Your task to perform on an android device: Turn off the flashlight Image 0: 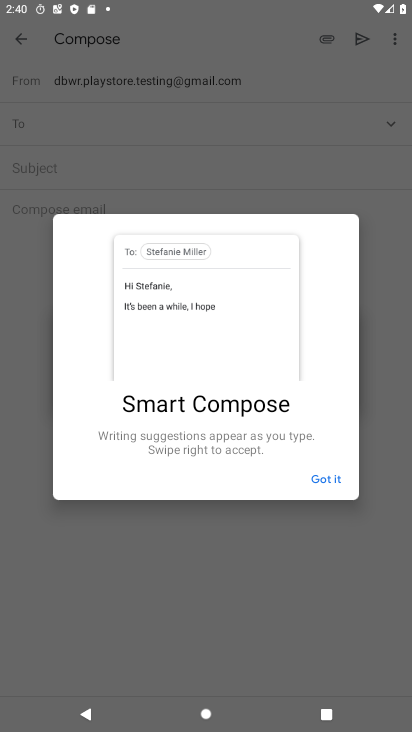
Step 0: press home button
Your task to perform on an android device: Turn off the flashlight Image 1: 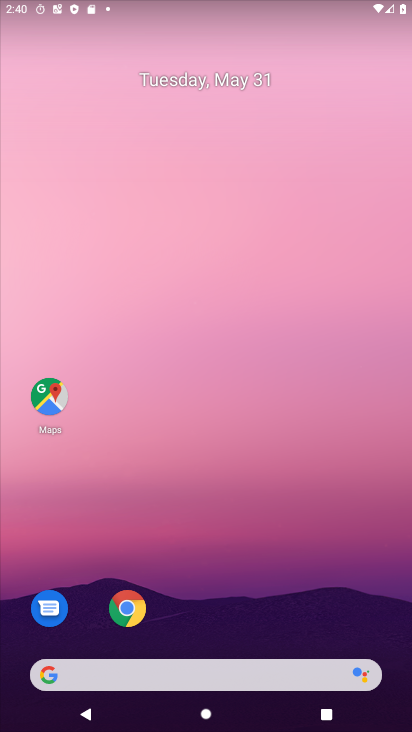
Step 1: drag from (243, 597) to (245, 273)
Your task to perform on an android device: Turn off the flashlight Image 2: 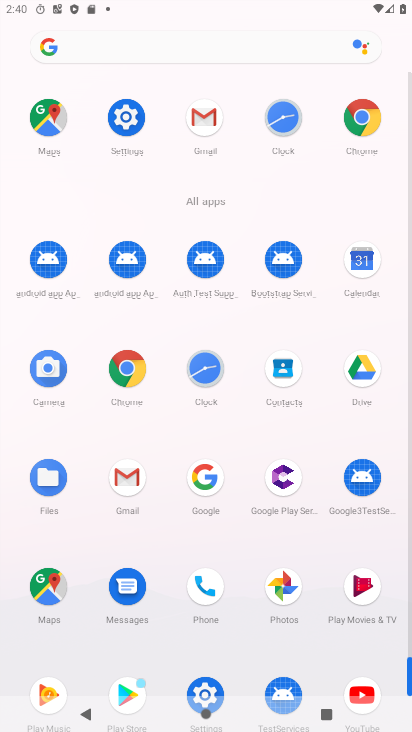
Step 2: click (118, 114)
Your task to perform on an android device: Turn off the flashlight Image 3: 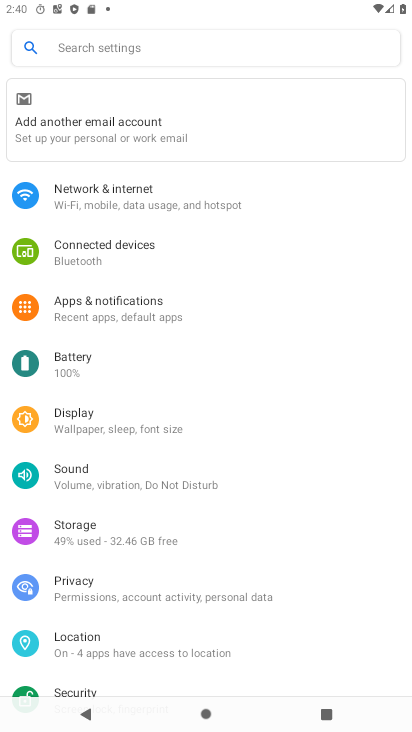
Step 3: click (160, 40)
Your task to perform on an android device: Turn off the flashlight Image 4: 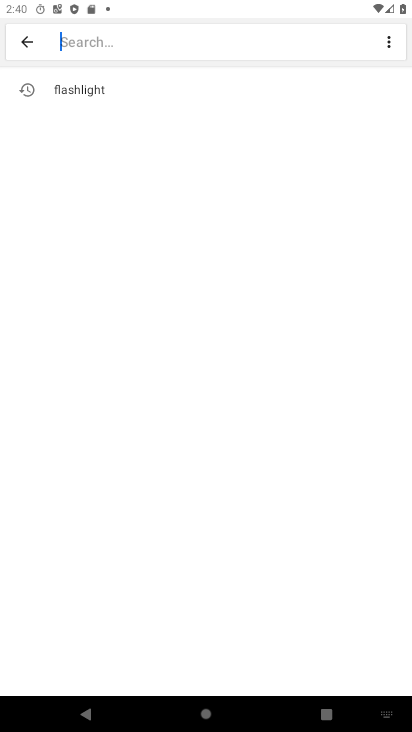
Step 4: type "flashlight"
Your task to perform on an android device: Turn off the flashlight Image 5: 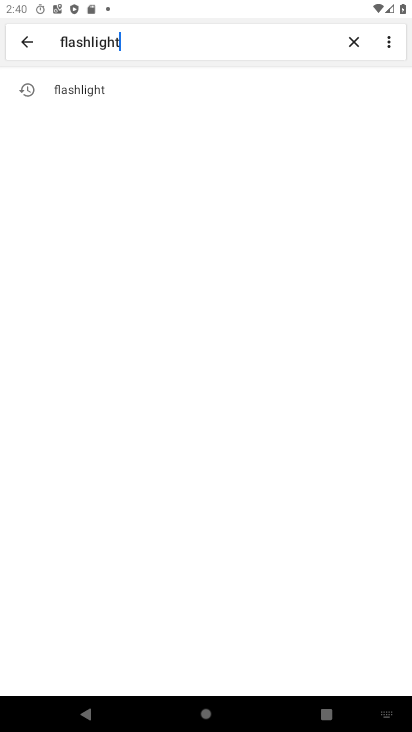
Step 5: click (78, 89)
Your task to perform on an android device: Turn off the flashlight Image 6: 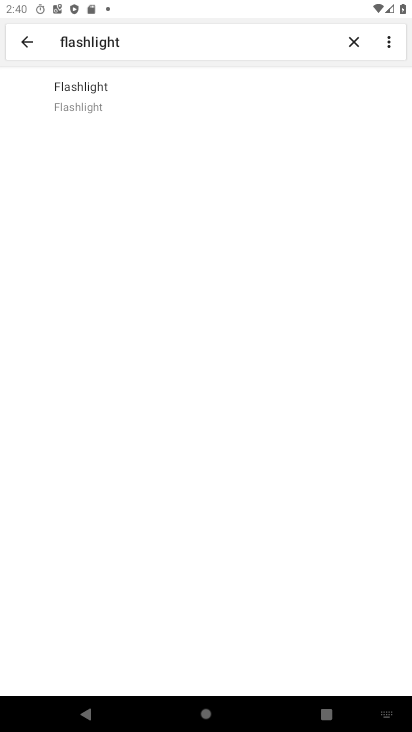
Step 6: click (93, 98)
Your task to perform on an android device: Turn off the flashlight Image 7: 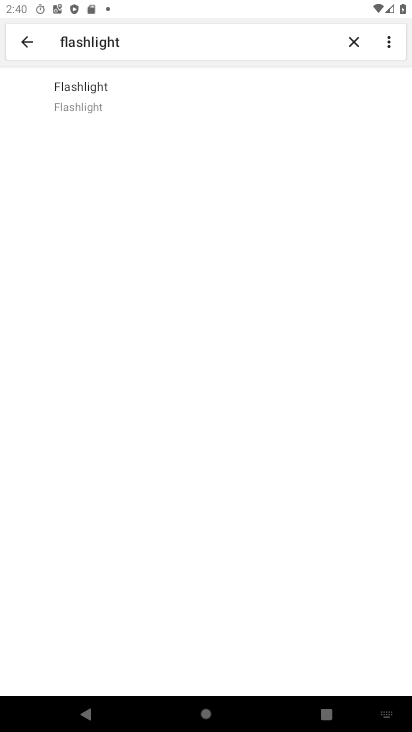
Step 7: task complete